Your task to perform on an android device: turn on the 12-hour format for clock Image 0: 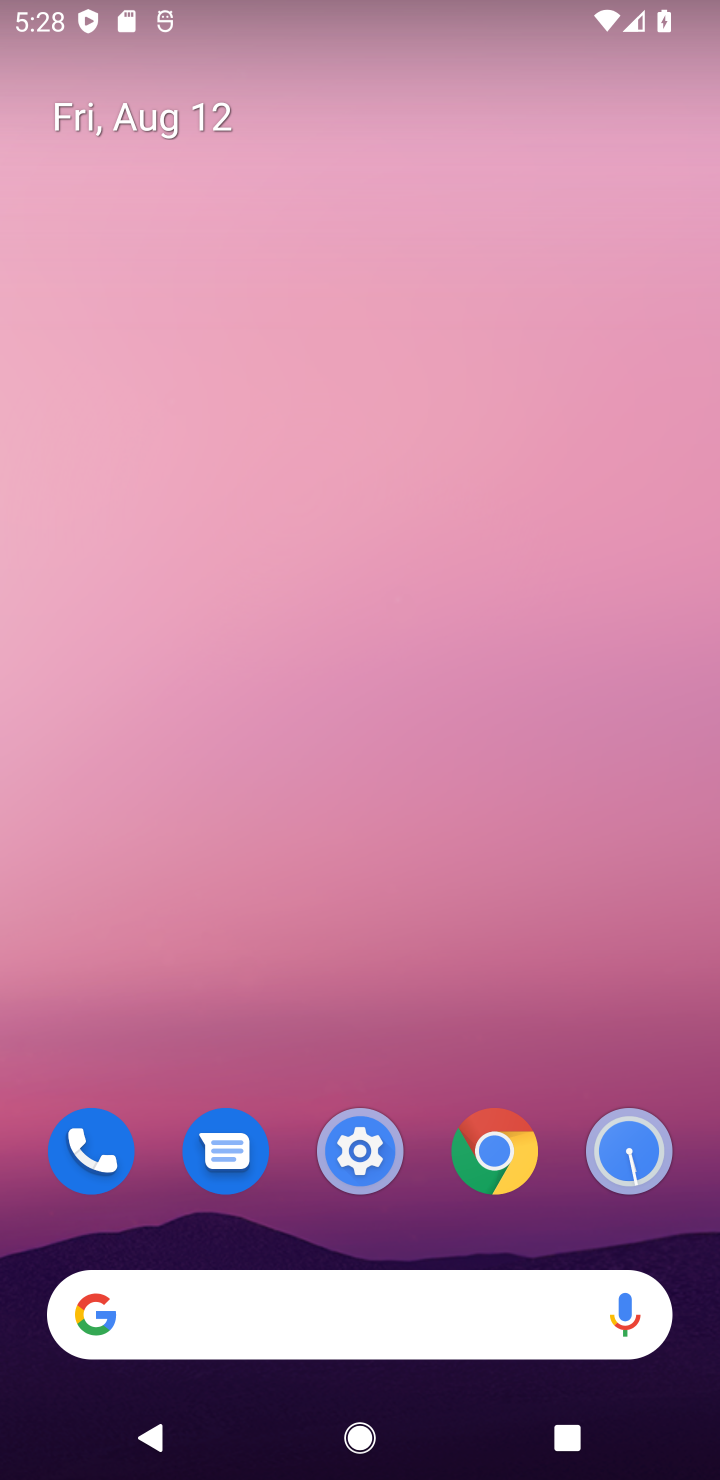
Step 0: drag from (443, 24) to (377, 0)
Your task to perform on an android device: turn on the 12-hour format for clock Image 1: 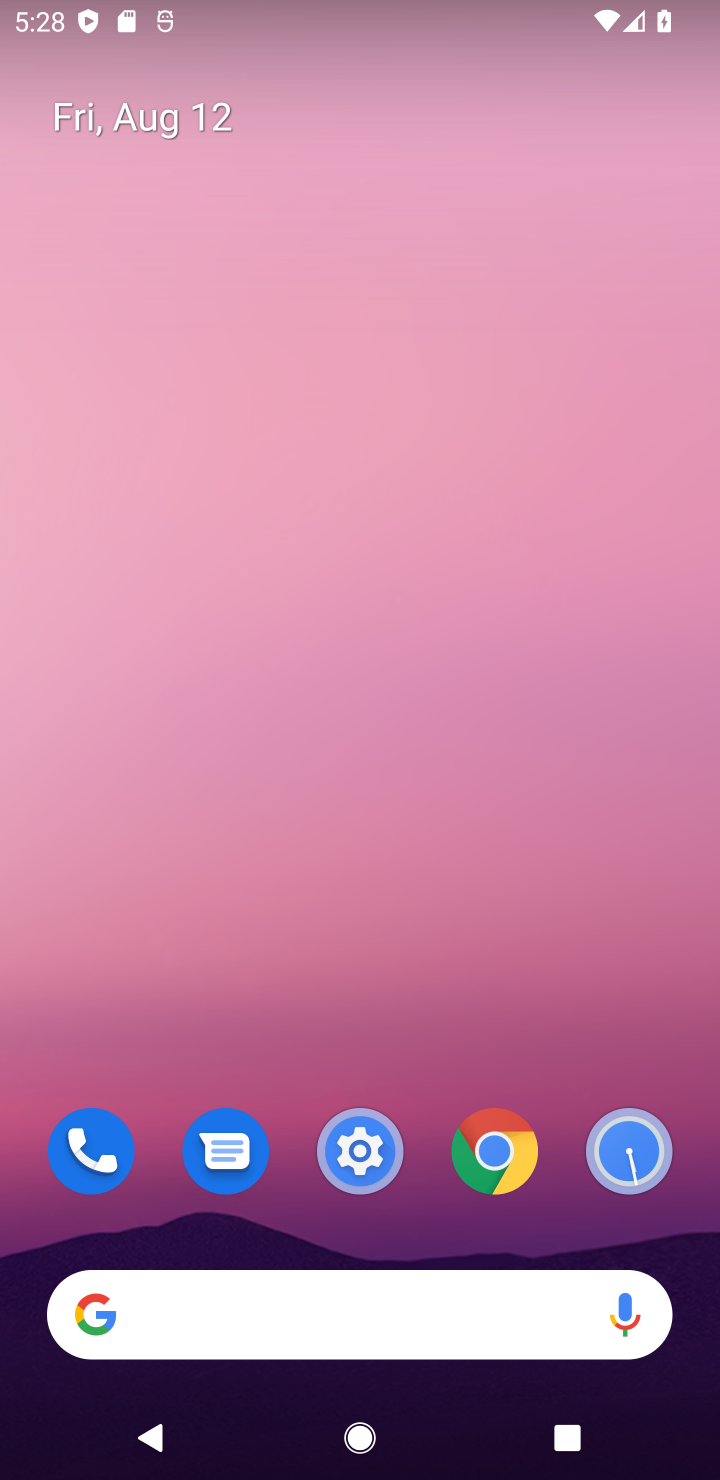
Step 1: drag from (484, 810) to (548, 180)
Your task to perform on an android device: turn on the 12-hour format for clock Image 2: 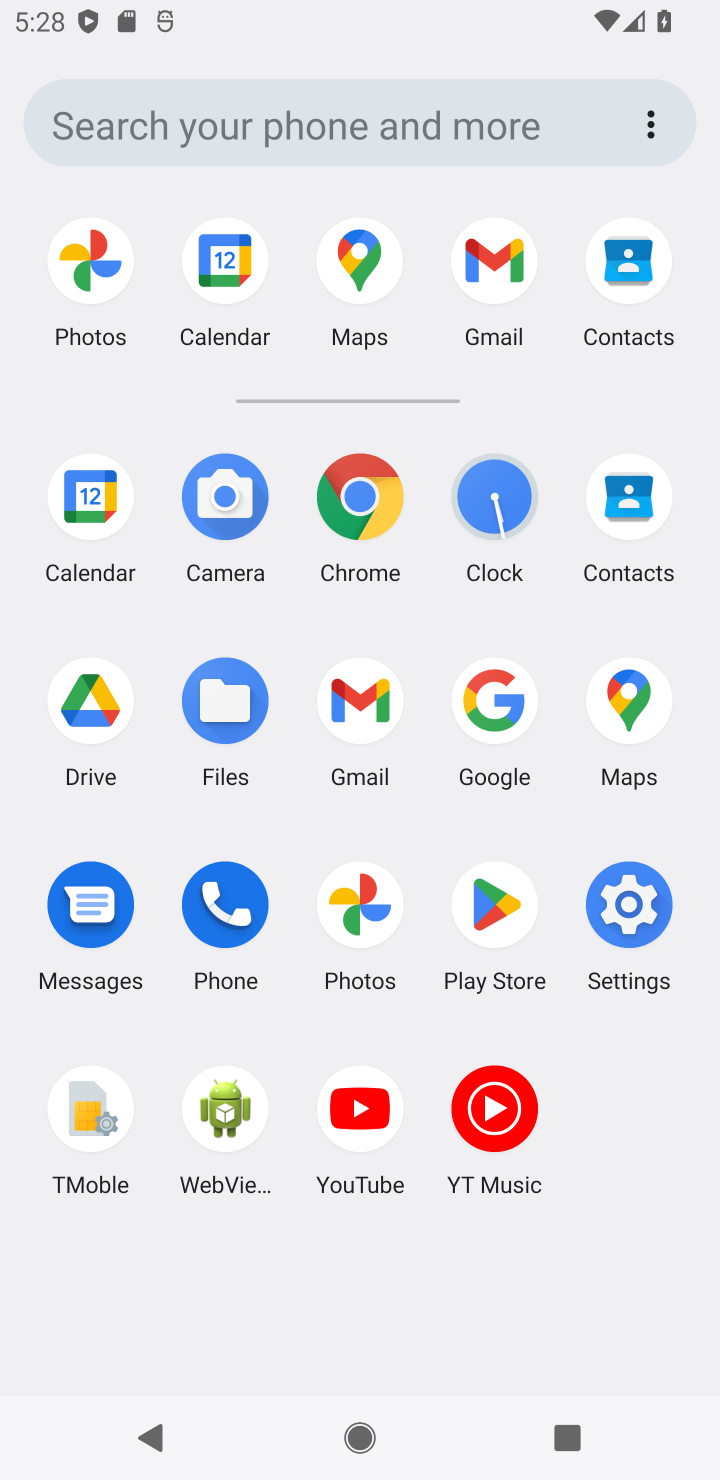
Step 2: click (499, 492)
Your task to perform on an android device: turn on the 12-hour format for clock Image 3: 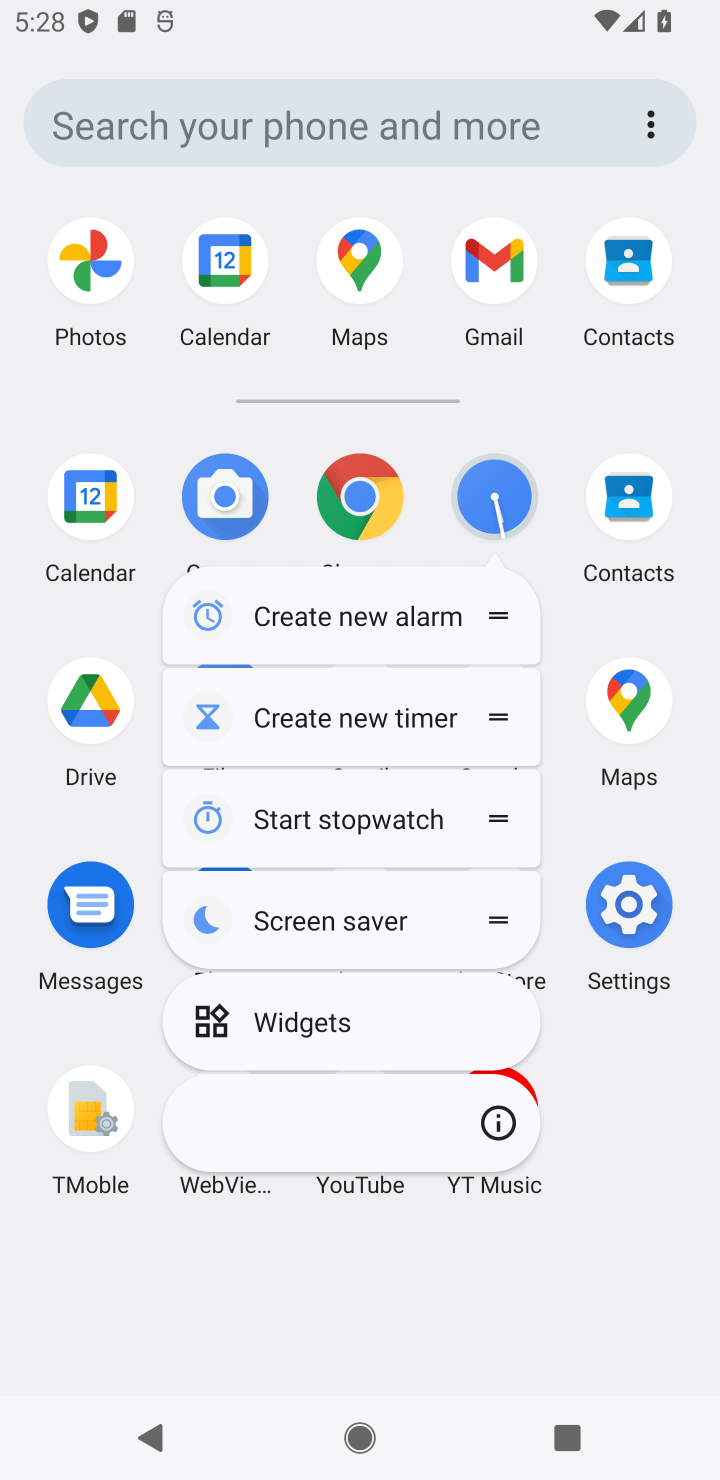
Step 3: click (499, 492)
Your task to perform on an android device: turn on the 12-hour format for clock Image 4: 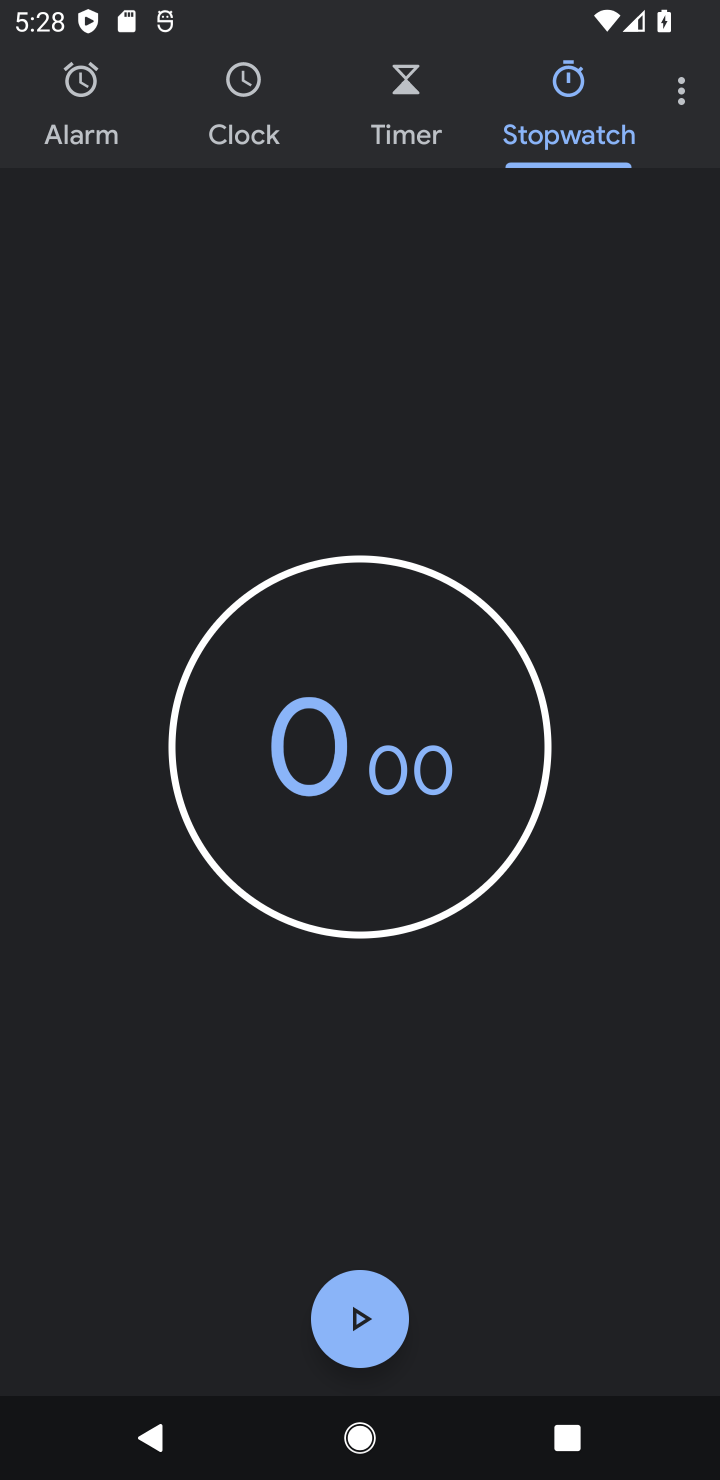
Step 4: click (688, 83)
Your task to perform on an android device: turn on the 12-hour format for clock Image 5: 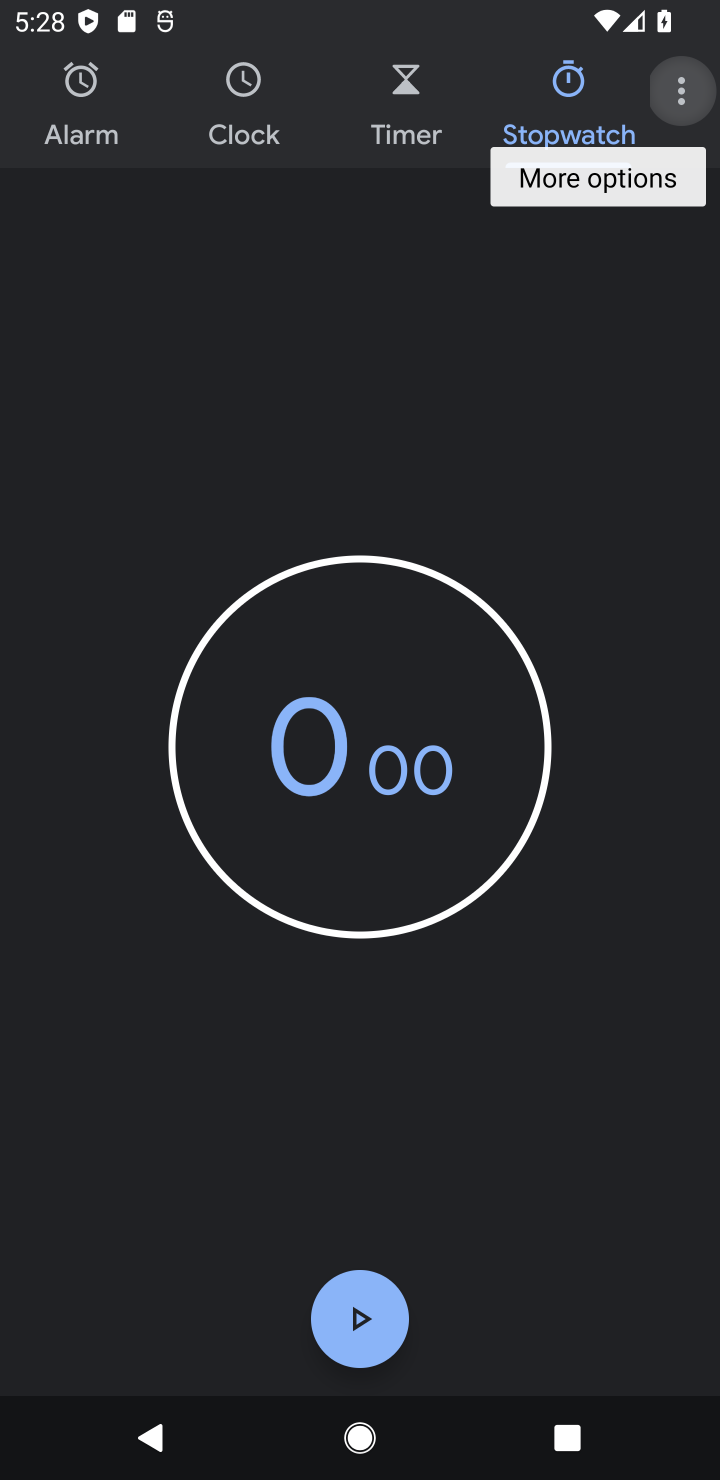
Step 5: click (688, 83)
Your task to perform on an android device: turn on the 12-hour format for clock Image 6: 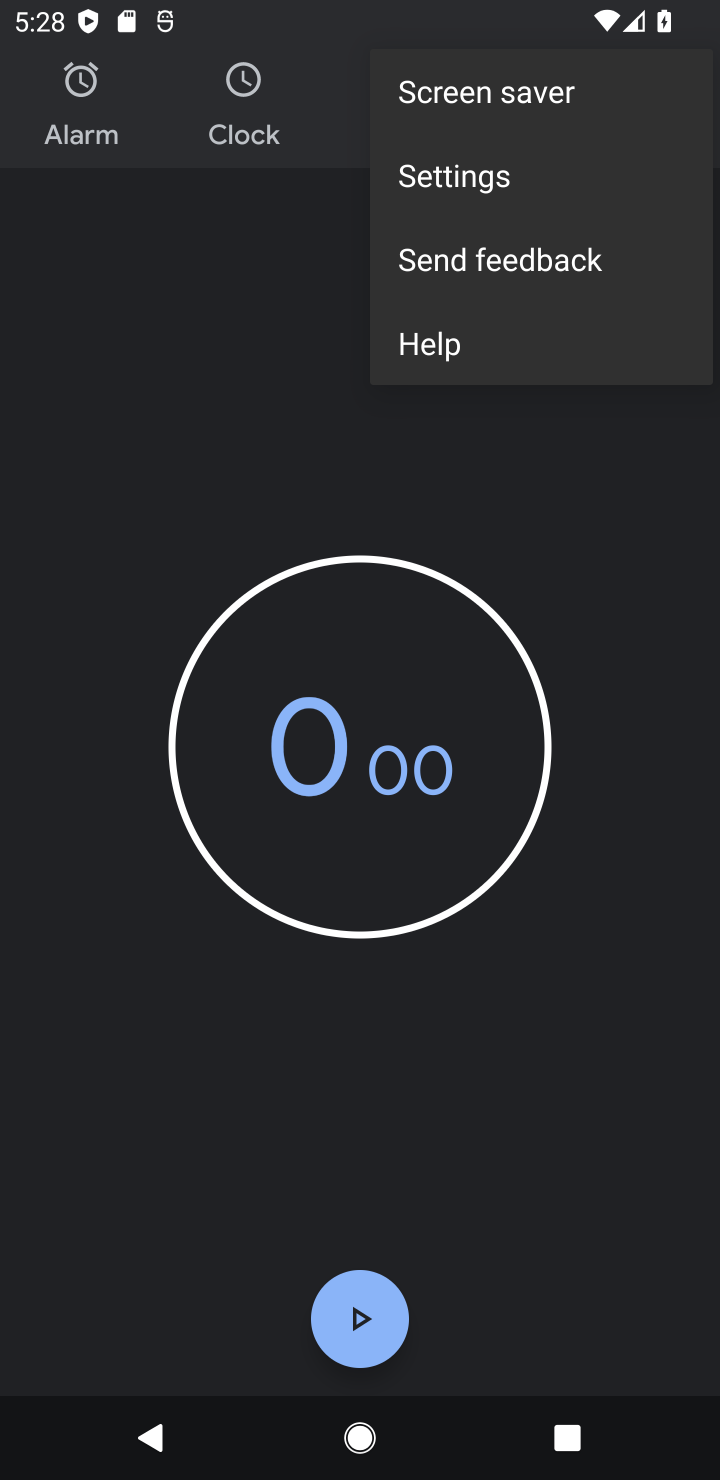
Step 6: click (450, 185)
Your task to perform on an android device: turn on the 12-hour format for clock Image 7: 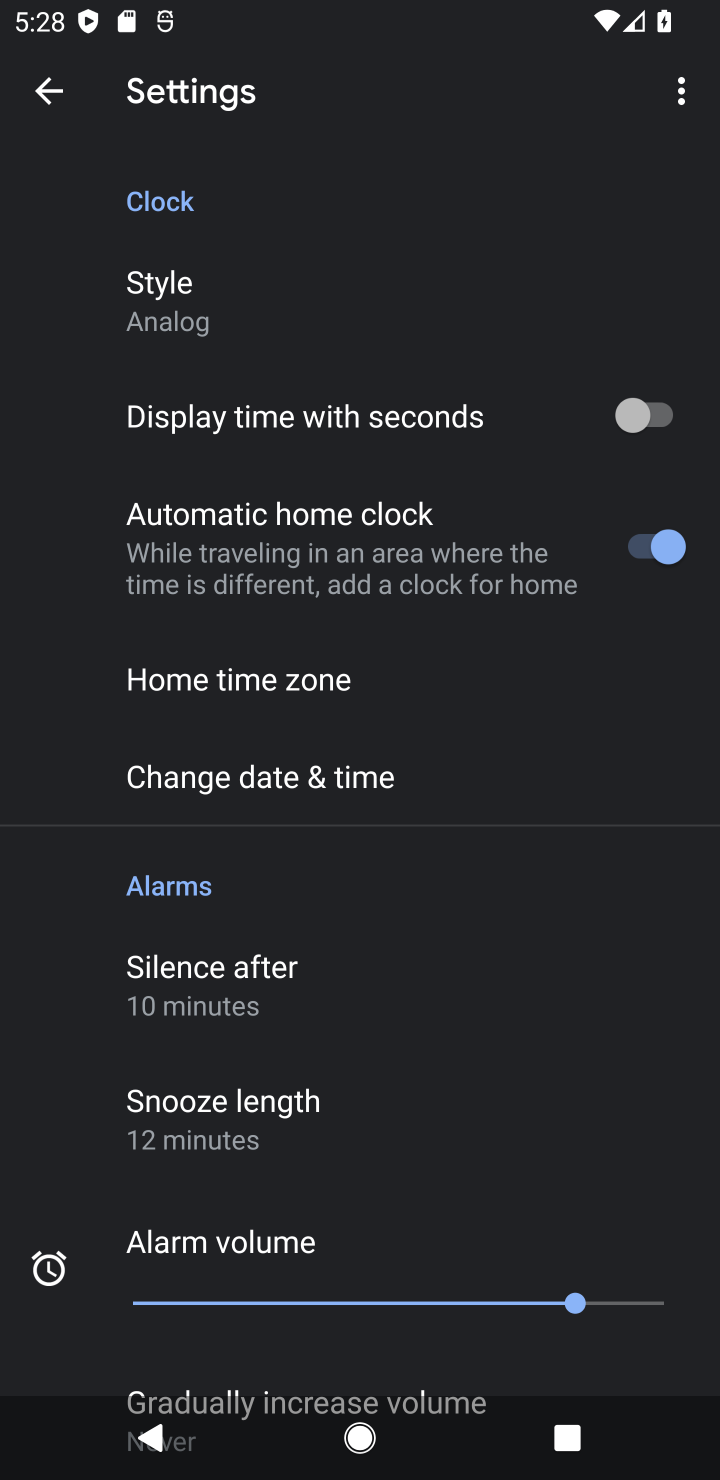
Step 7: click (250, 782)
Your task to perform on an android device: turn on the 12-hour format for clock Image 8: 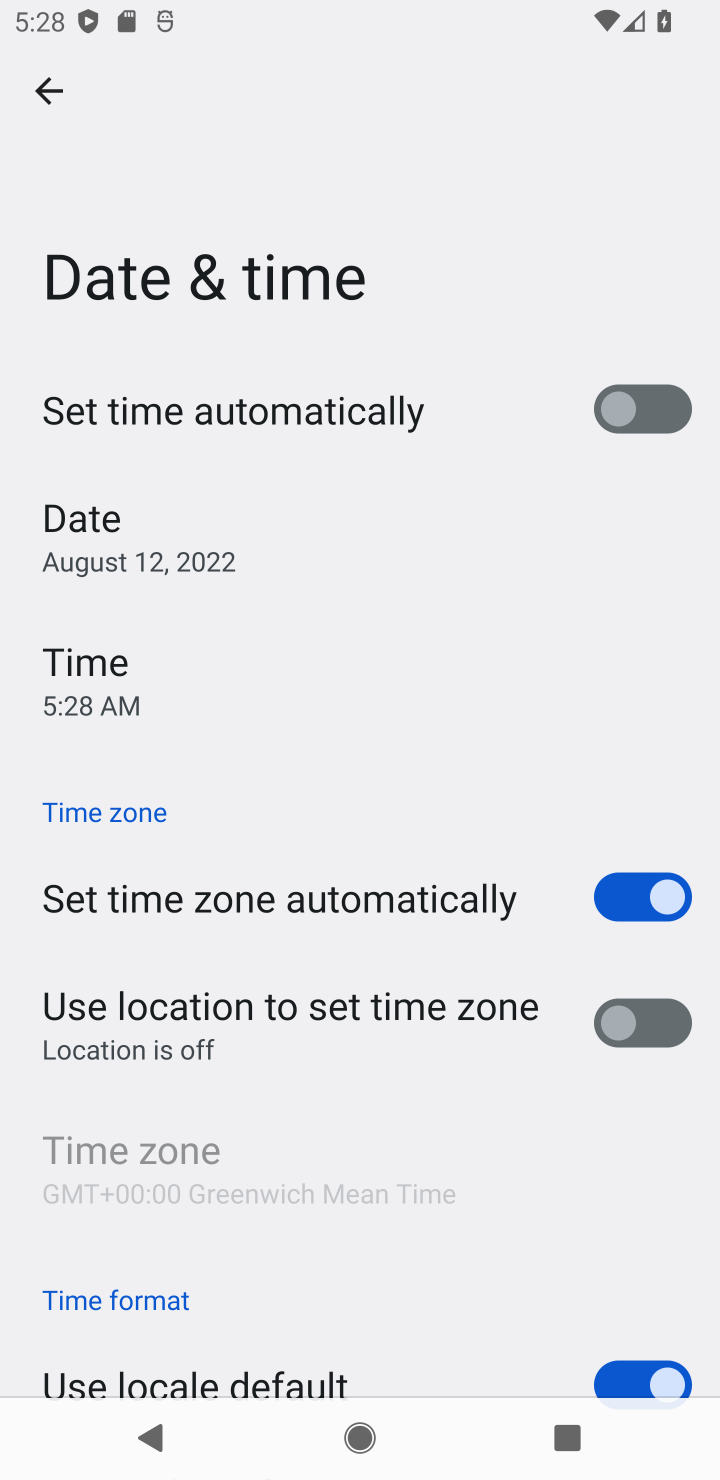
Step 8: task complete